Your task to perform on an android device: allow cookies in the chrome app Image 0: 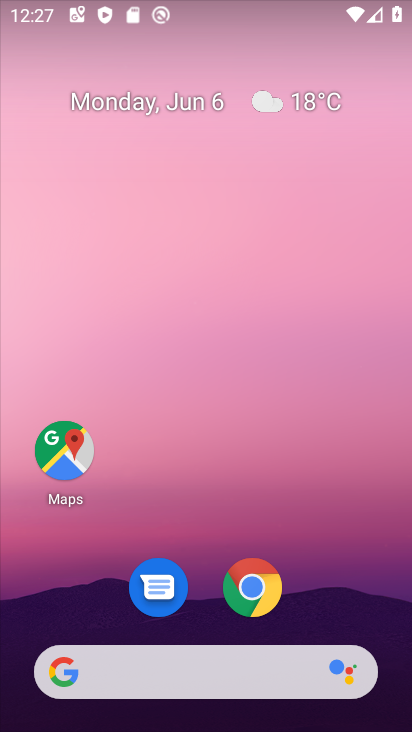
Step 0: drag from (355, 610) to (301, 147)
Your task to perform on an android device: allow cookies in the chrome app Image 1: 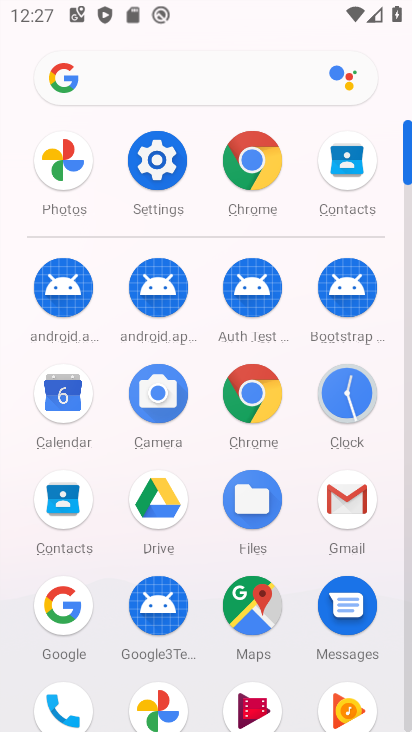
Step 1: click (212, 419)
Your task to perform on an android device: allow cookies in the chrome app Image 2: 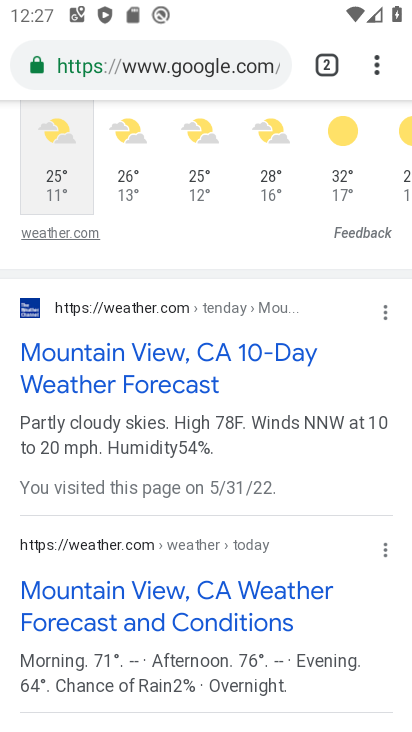
Step 2: drag from (391, 67) to (196, 640)
Your task to perform on an android device: allow cookies in the chrome app Image 3: 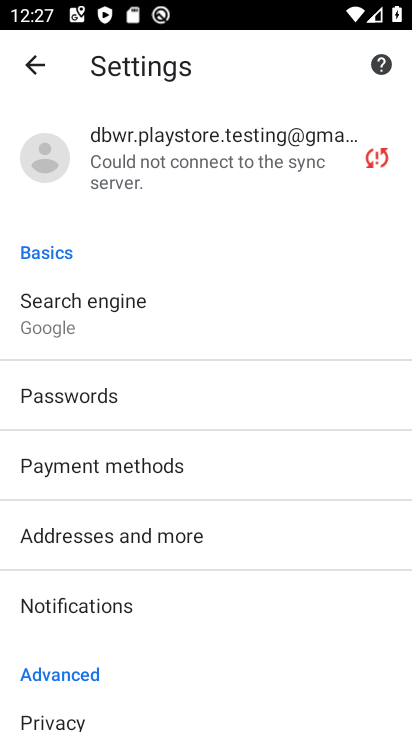
Step 3: drag from (182, 669) to (211, 276)
Your task to perform on an android device: allow cookies in the chrome app Image 4: 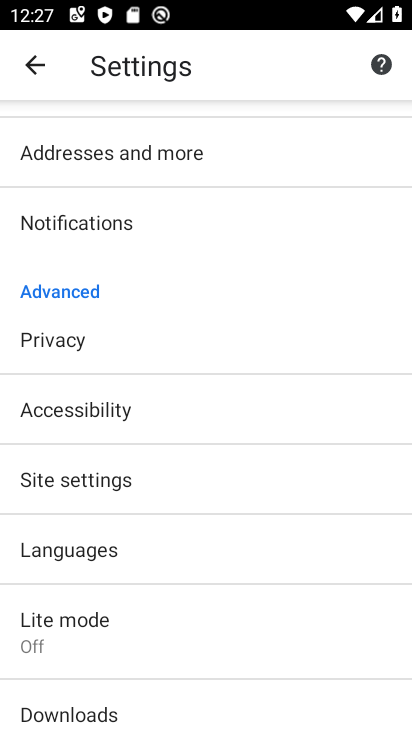
Step 4: click (141, 476)
Your task to perform on an android device: allow cookies in the chrome app Image 5: 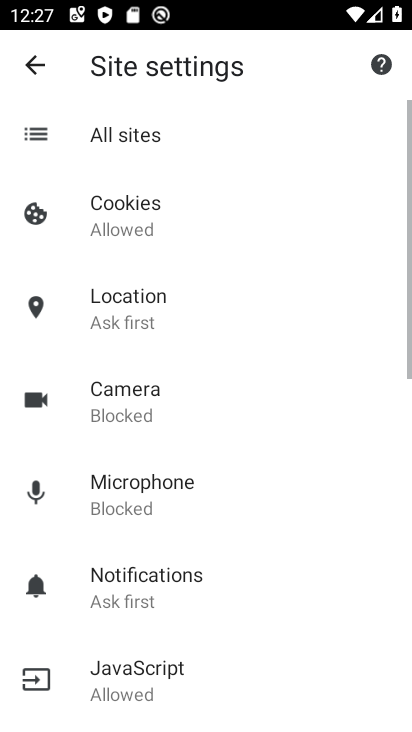
Step 5: click (157, 214)
Your task to perform on an android device: allow cookies in the chrome app Image 6: 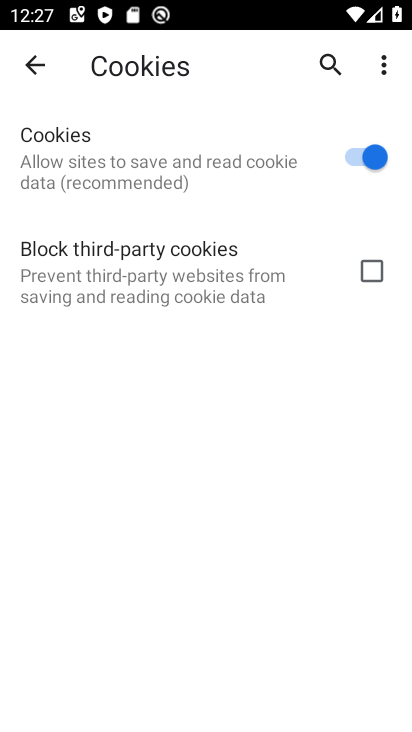
Step 6: task complete